Your task to perform on an android device: add a contact in the contacts app Image 0: 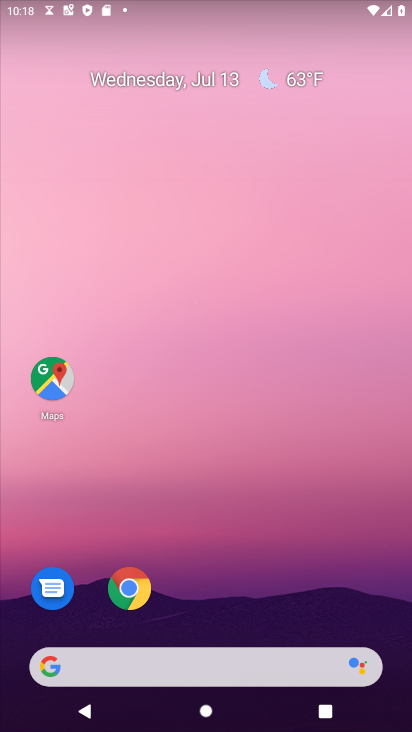
Step 0: drag from (8, 730) to (208, 121)
Your task to perform on an android device: add a contact in the contacts app Image 1: 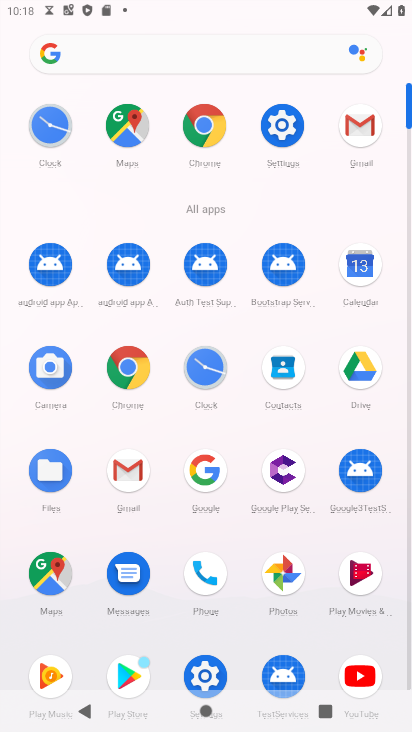
Step 1: click (201, 570)
Your task to perform on an android device: add a contact in the contacts app Image 2: 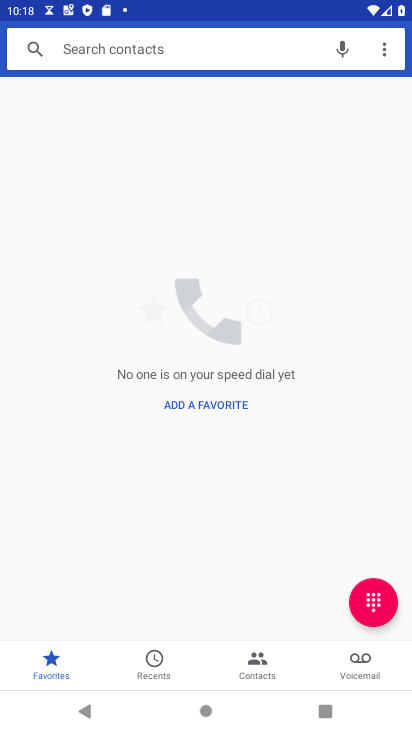
Step 2: click (266, 669)
Your task to perform on an android device: add a contact in the contacts app Image 3: 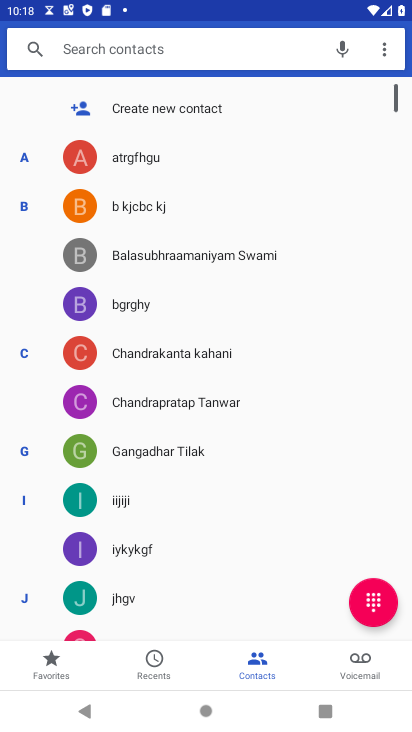
Step 3: click (188, 105)
Your task to perform on an android device: add a contact in the contacts app Image 4: 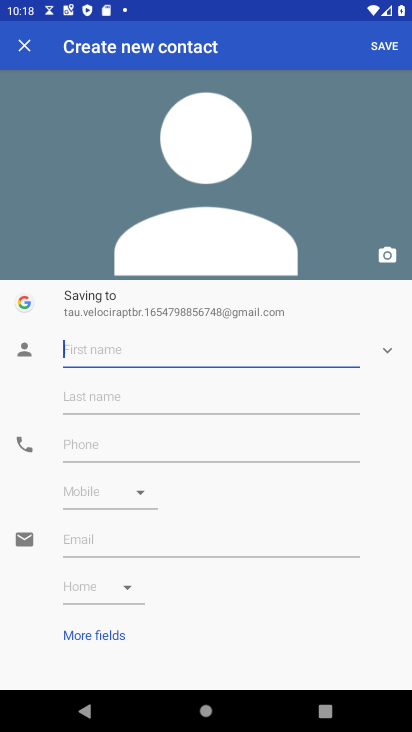
Step 4: type "ggdhhu"
Your task to perform on an android device: add a contact in the contacts app Image 5: 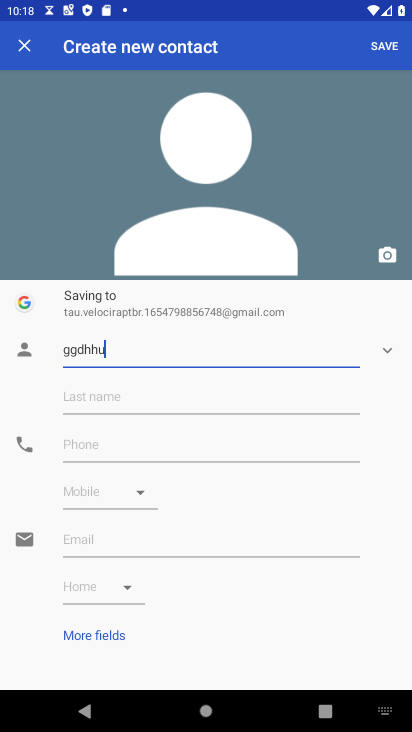
Step 5: type ""
Your task to perform on an android device: add a contact in the contacts app Image 6: 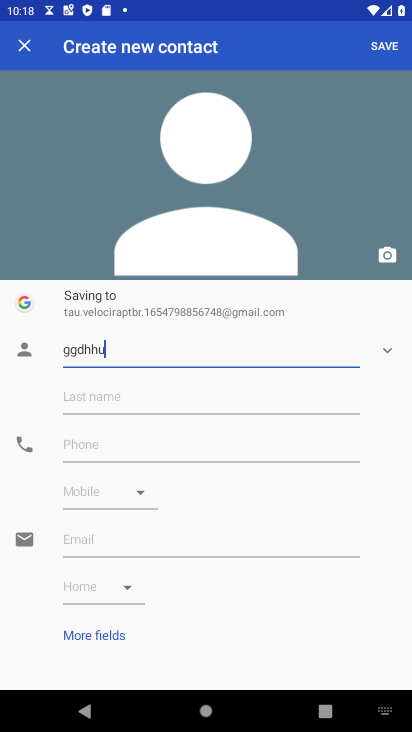
Step 6: click (389, 40)
Your task to perform on an android device: add a contact in the contacts app Image 7: 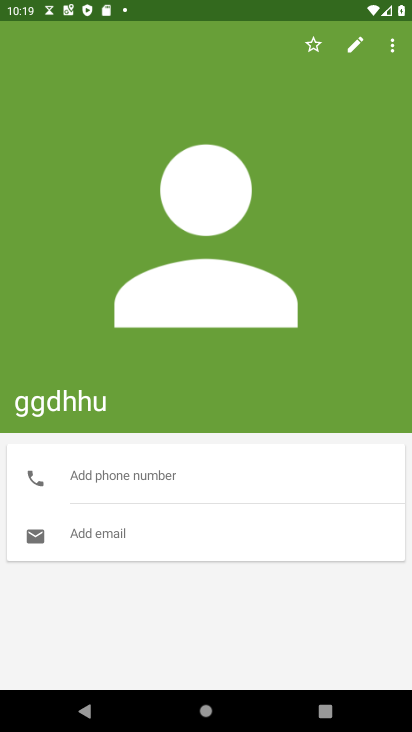
Step 7: task complete